Your task to perform on an android device: Open my contact list Image 0: 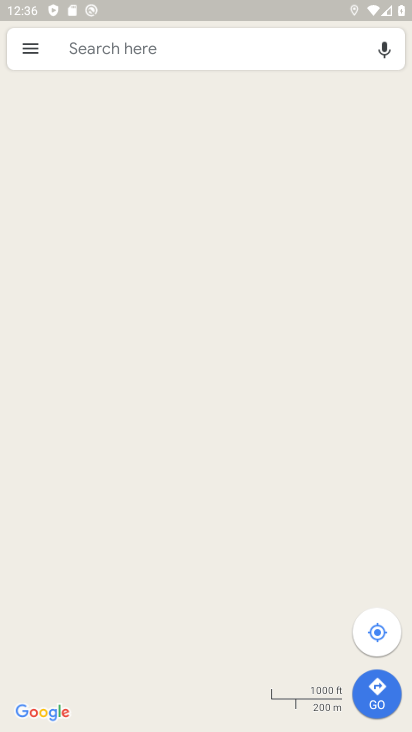
Step 0: press home button
Your task to perform on an android device: Open my contact list Image 1: 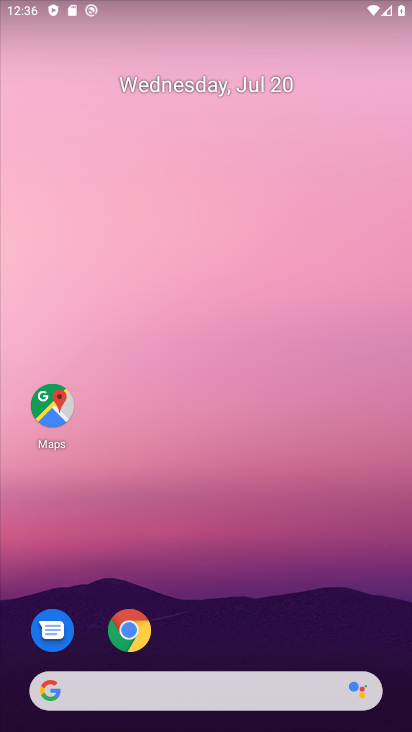
Step 1: drag from (216, 661) to (304, 172)
Your task to perform on an android device: Open my contact list Image 2: 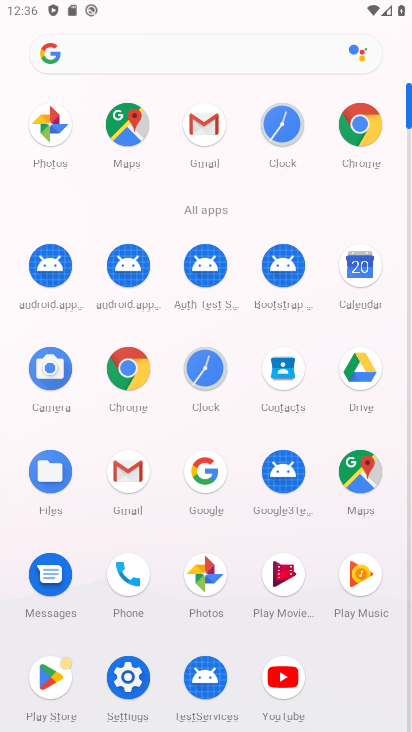
Step 2: click (300, 373)
Your task to perform on an android device: Open my contact list Image 3: 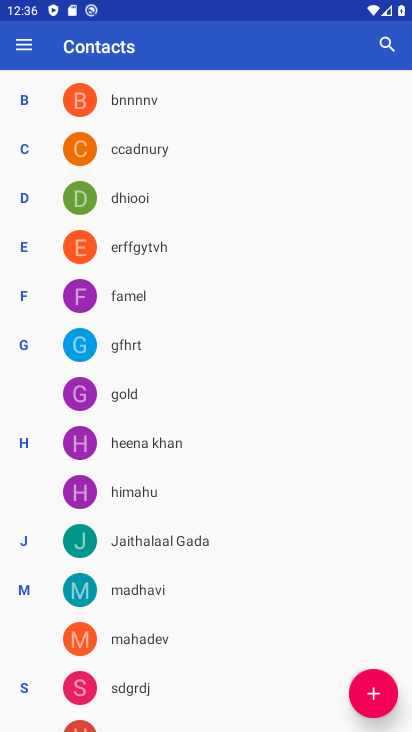
Step 3: task complete